Your task to perform on an android device: Open eBay Image 0: 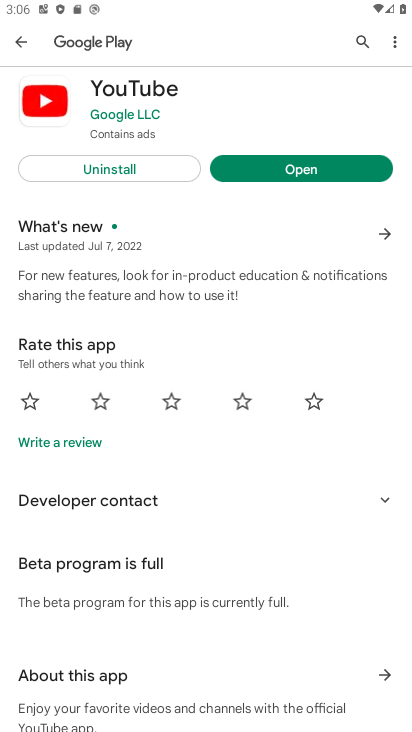
Step 0: press home button
Your task to perform on an android device: Open eBay Image 1: 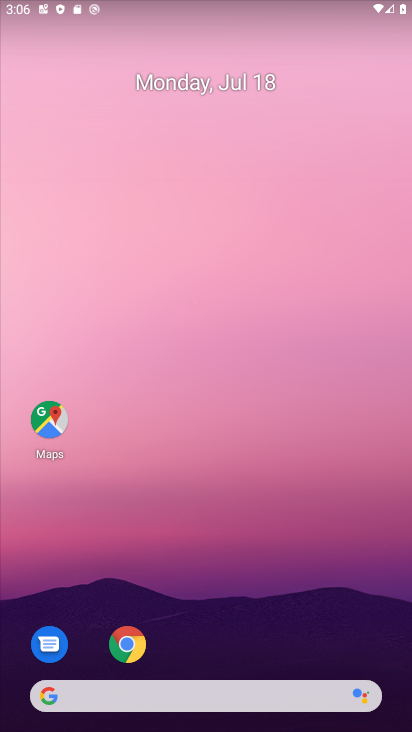
Step 1: click (128, 645)
Your task to perform on an android device: Open eBay Image 2: 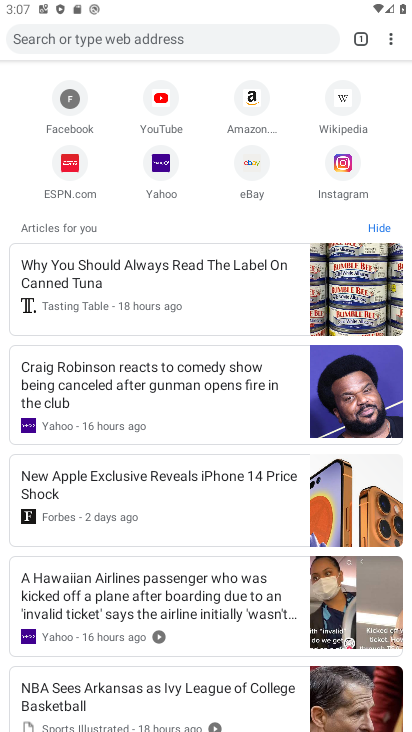
Step 2: click (128, 39)
Your task to perform on an android device: Open eBay Image 3: 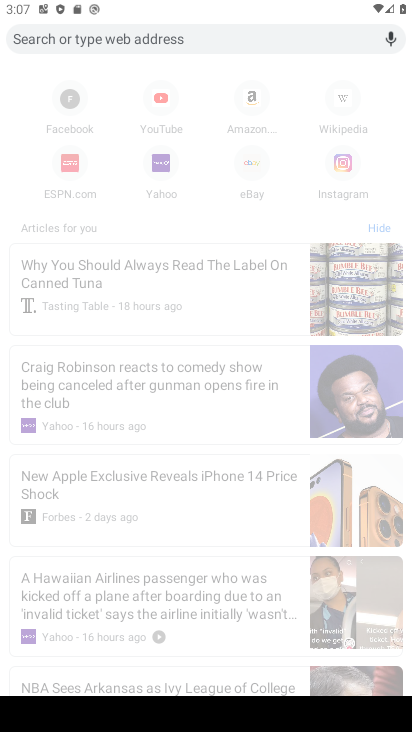
Step 3: type "eBay"
Your task to perform on an android device: Open eBay Image 4: 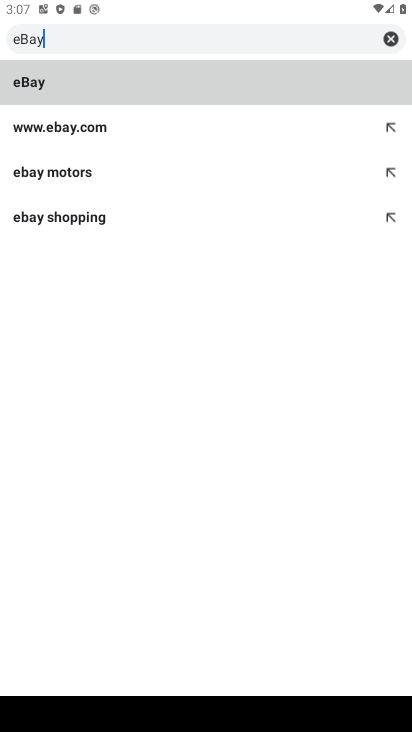
Step 4: click (63, 81)
Your task to perform on an android device: Open eBay Image 5: 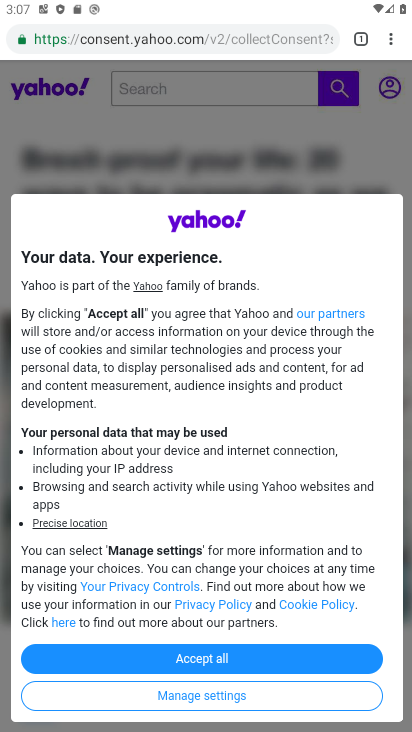
Step 5: click (198, 660)
Your task to perform on an android device: Open eBay Image 6: 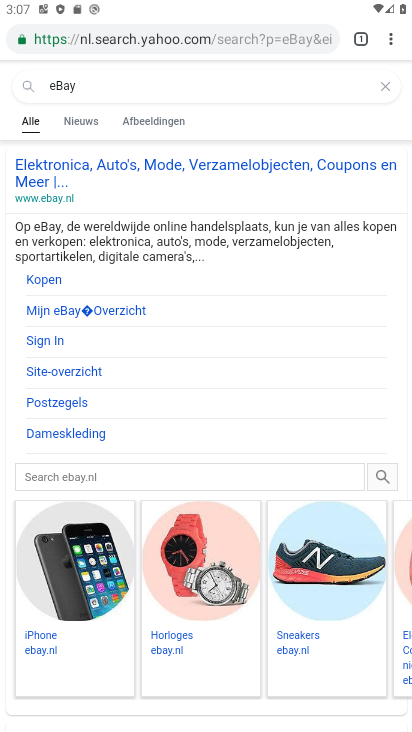
Step 6: click (28, 175)
Your task to perform on an android device: Open eBay Image 7: 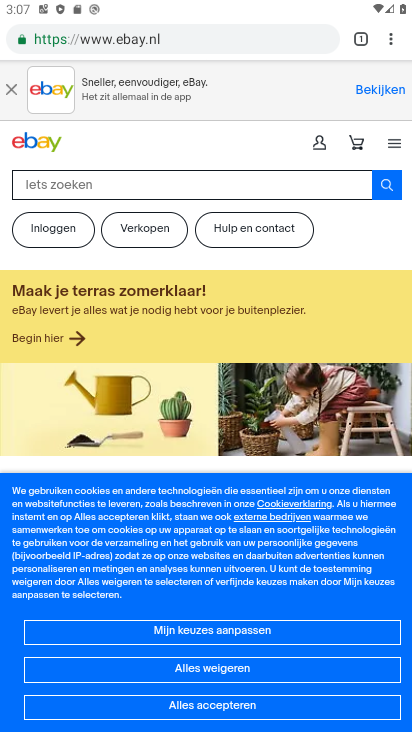
Step 7: task complete